Your task to perform on an android device: add a contact in the contacts app Image 0: 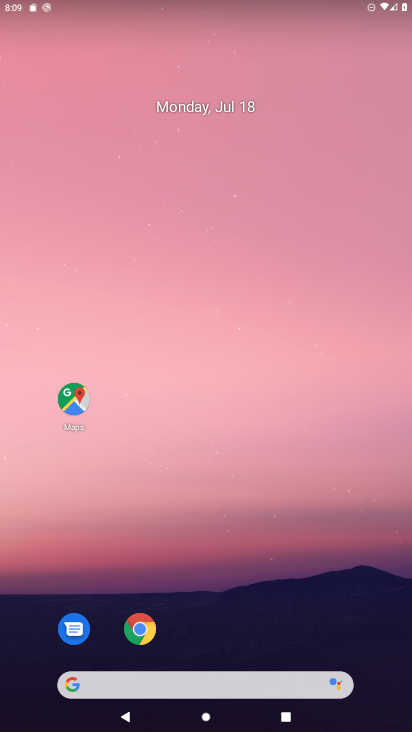
Step 0: drag from (208, 664) to (241, 35)
Your task to perform on an android device: add a contact in the contacts app Image 1: 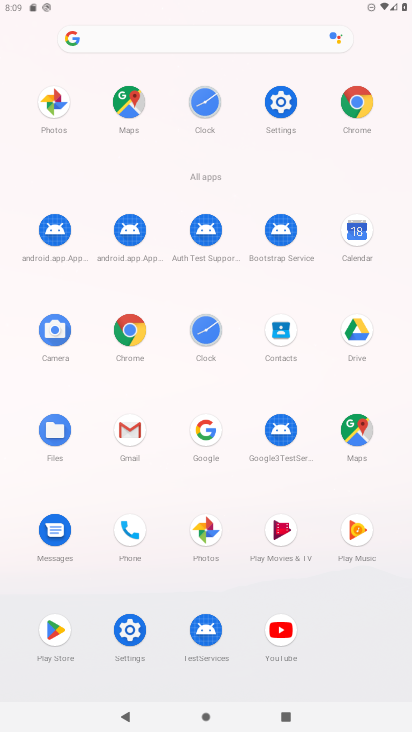
Step 1: click (126, 530)
Your task to perform on an android device: add a contact in the contacts app Image 2: 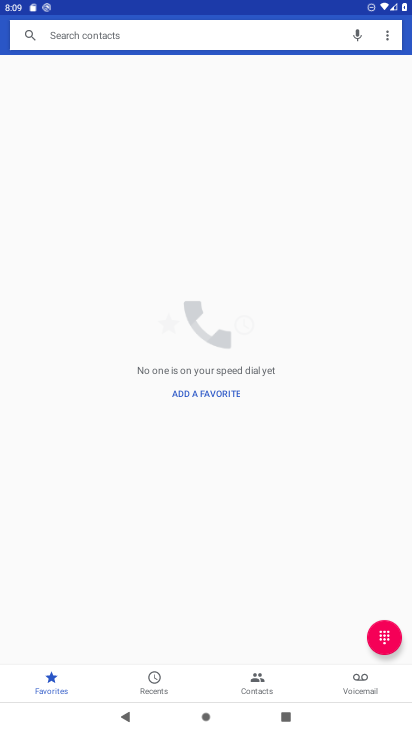
Step 2: click (256, 682)
Your task to perform on an android device: add a contact in the contacts app Image 3: 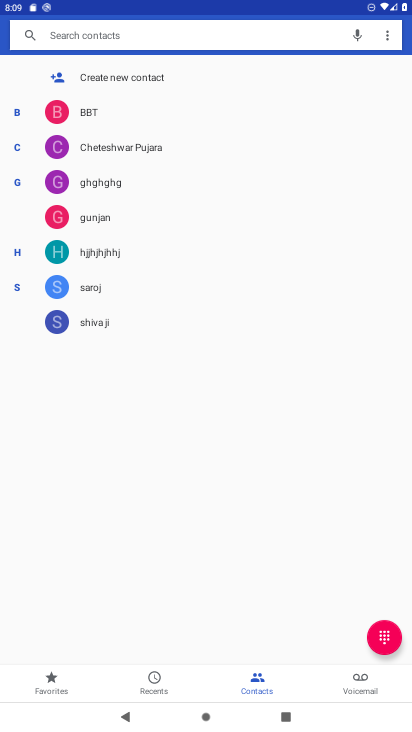
Step 3: click (92, 84)
Your task to perform on an android device: add a contact in the contacts app Image 4: 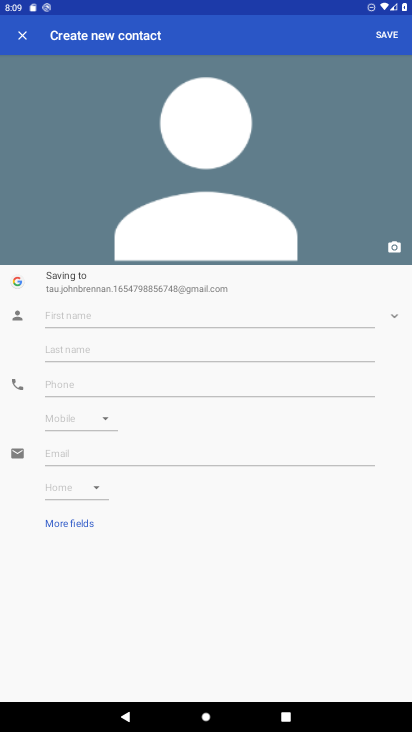
Step 4: click (256, 304)
Your task to perform on an android device: add a contact in the contacts app Image 5: 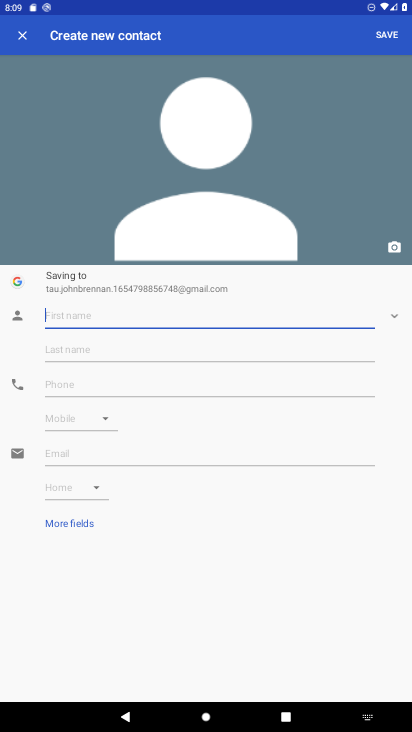
Step 5: type "jki"
Your task to perform on an android device: add a contact in the contacts app Image 6: 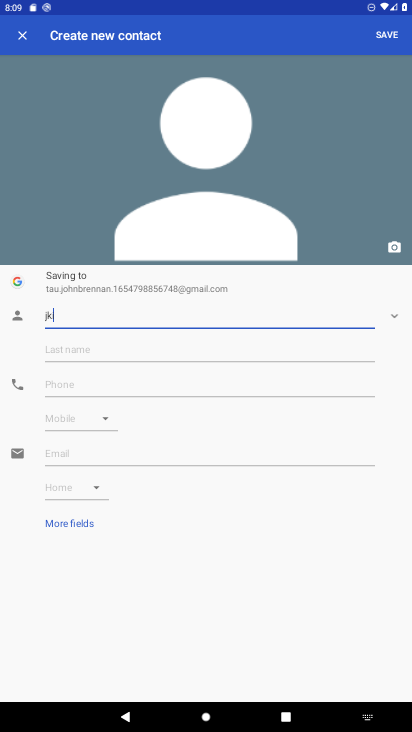
Step 6: click (170, 392)
Your task to perform on an android device: add a contact in the contacts app Image 7: 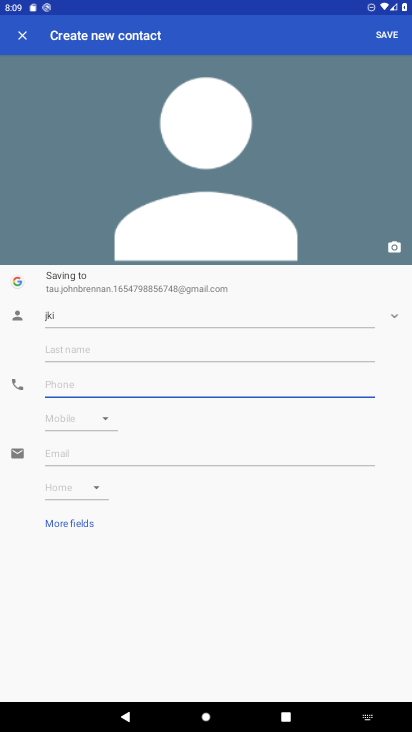
Step 7: type "987678"
Your task to perform on an android device: add a contact in the contacts app Image 8: 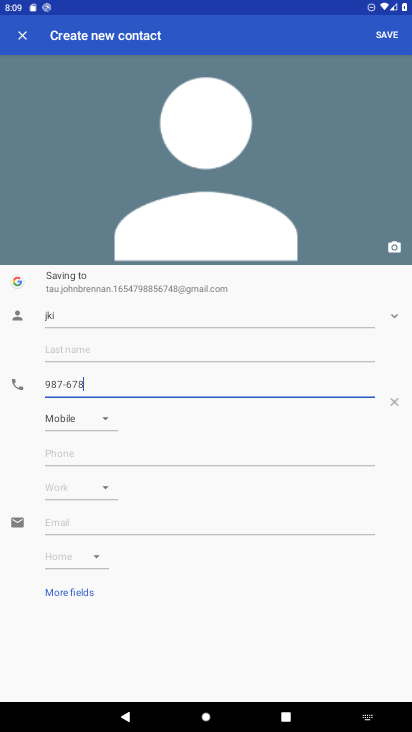
Step 8: type ""
Your task to perform on an android device: add a contact in the contacts app Image 9: 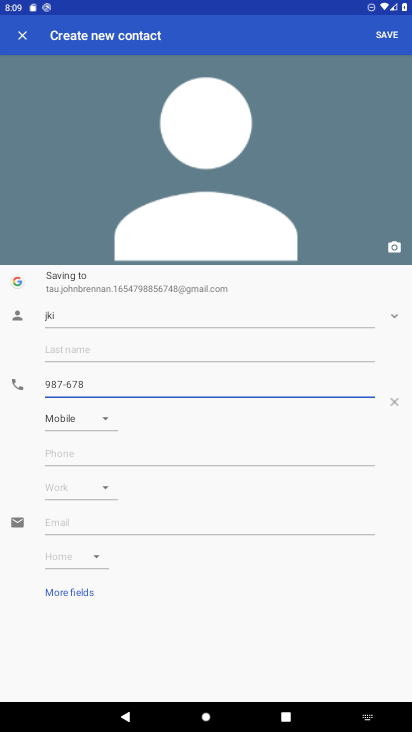
Step 9: click (385, 34)
Your task to perform on an android device: add a contact in the contacts app Image 10: 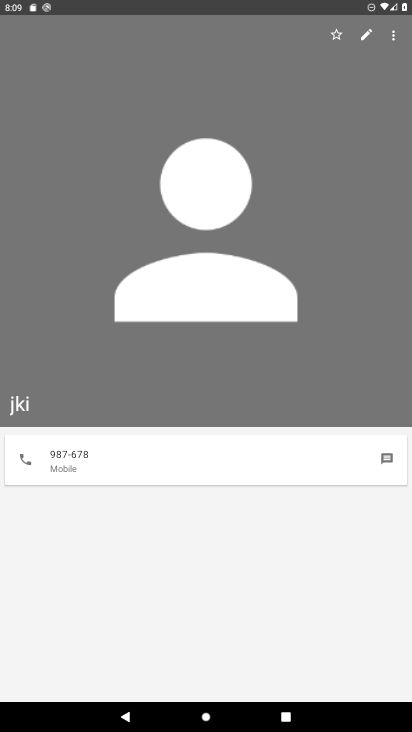
Step 10: task complete